Your task to perform on an android device: toggle data saver in the chrome app Image 0: 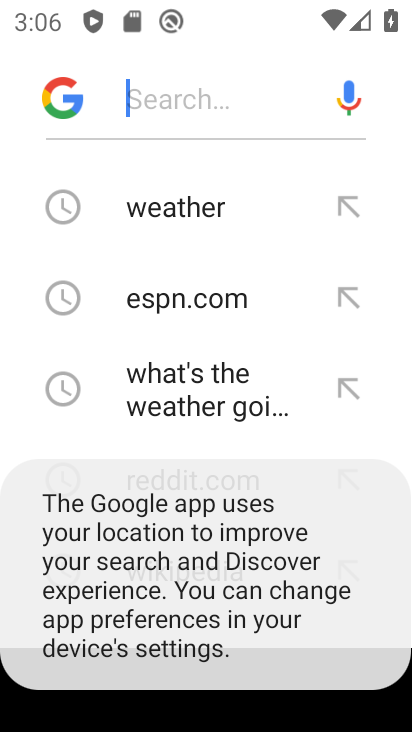
Step 0: press home button
Your task to perform on an android device: toggle data saver in the chrome app Image 1: 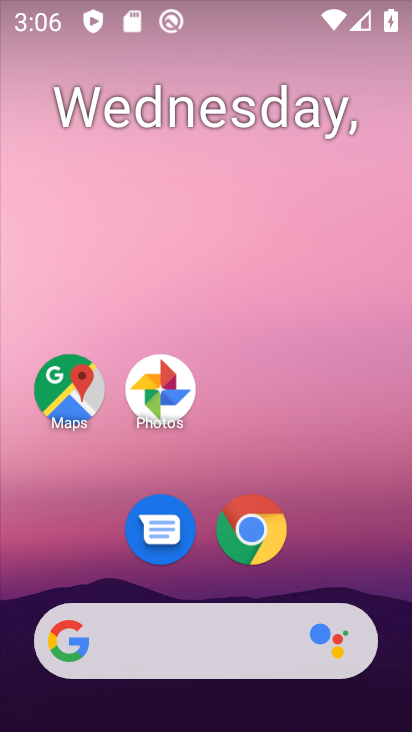
Step 1: drag from (206, 500) to (292, 83)
Your task to perform on an android device: toggle data saver in the chrome app Image 2: 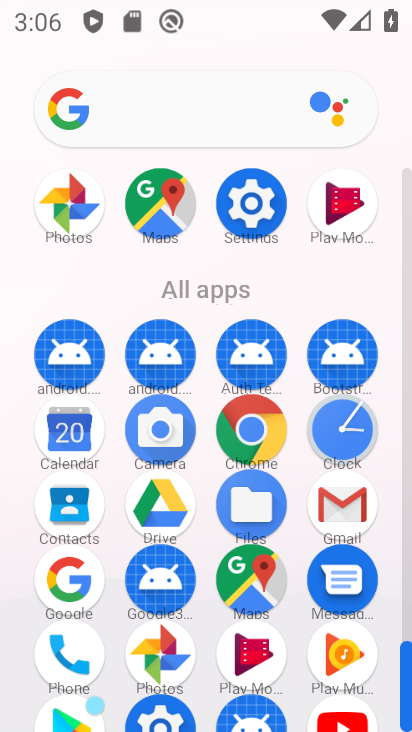
Step 2: click (255, 432)
Your task to perform on an android device: toggle data saver in the chrome app Image 3: 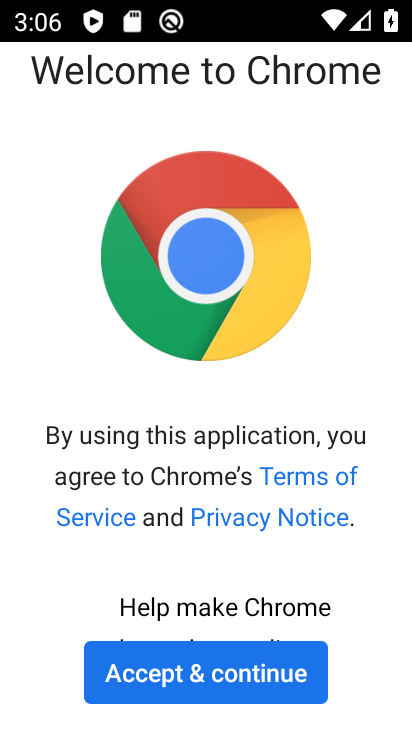
Step 3: click (213, 669)
Your task to perform on an android device: toggle data saver in the chrome app Image 4: 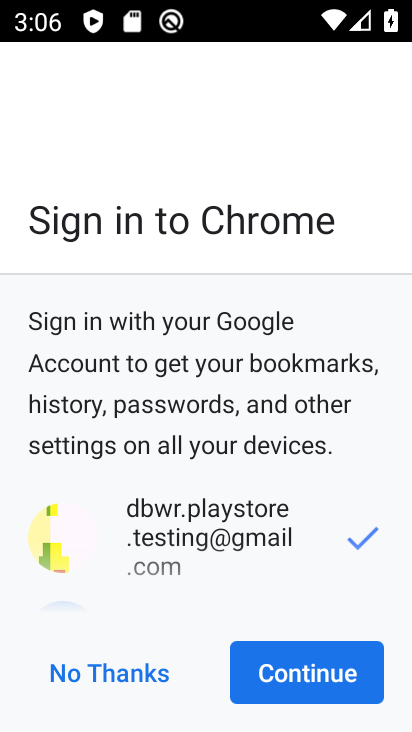
Step 4: click (311, 673)
Your task to perform on an android device: toggle data saver in the chrome app Image 5: 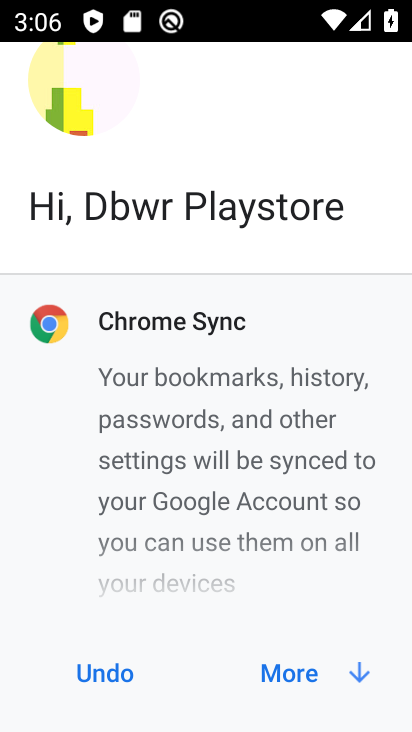
Step 5: click (290, 679)
Your task to perform on an android device: toggle data saver in the chrome app Image 6: 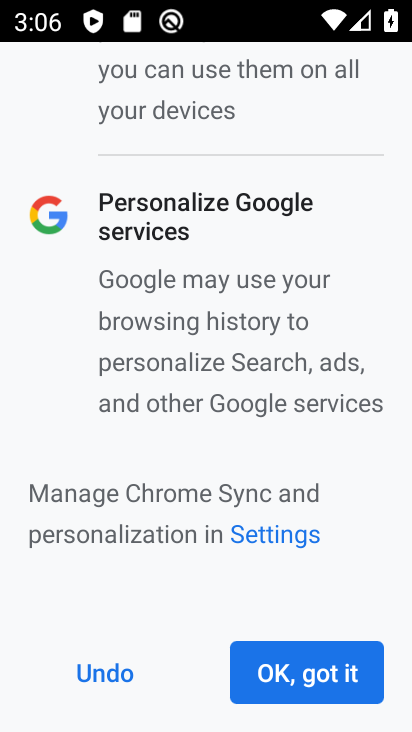
Step 6: click (310, 692)
Your task to perform on an android device: toggle data saver in the chrome app Image 7: 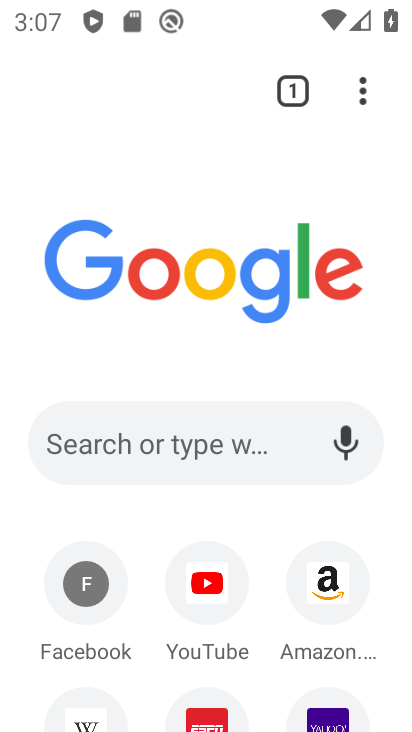
Step 7: click (360, 87)
Your task to perform on an android device: toggle data saver in the chrome app Image 8: 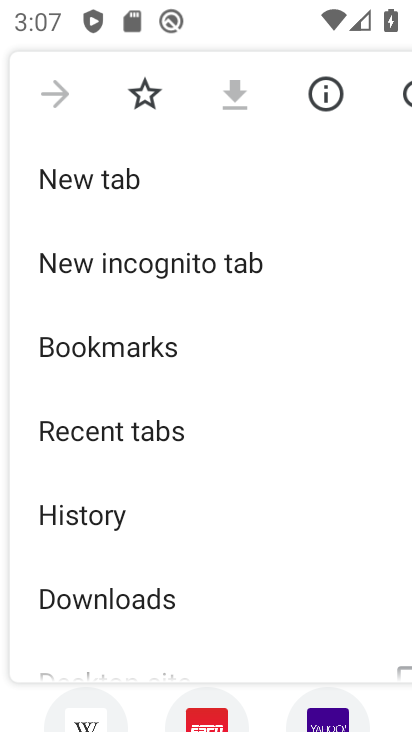
Step 8: drag from (139, 588) to (232, 211)
Your task to perform on an android device: toggle data saver in the chrome app Image 9: 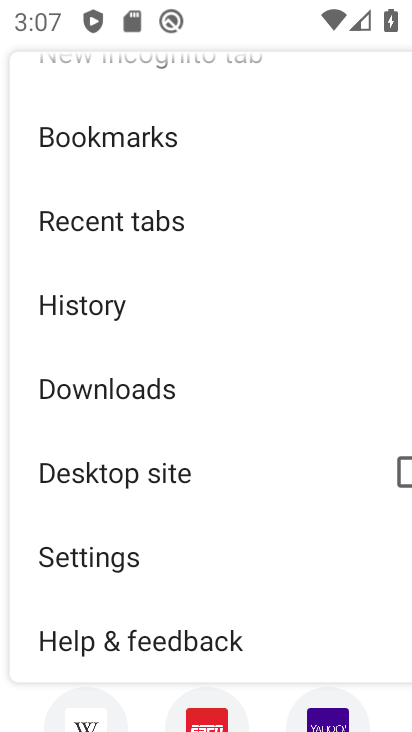
Step 9: click (88, 561)
Your task to perform on an android device: toggle data saver in the chrome app Image 10: 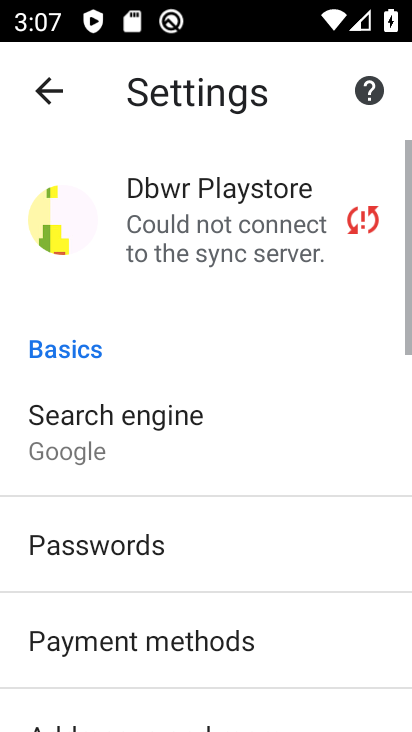
Step 10: drag from (157, 502) to (207, 279)
Your task to perform on an android device: toggle data saver in the chrome app Image 11: 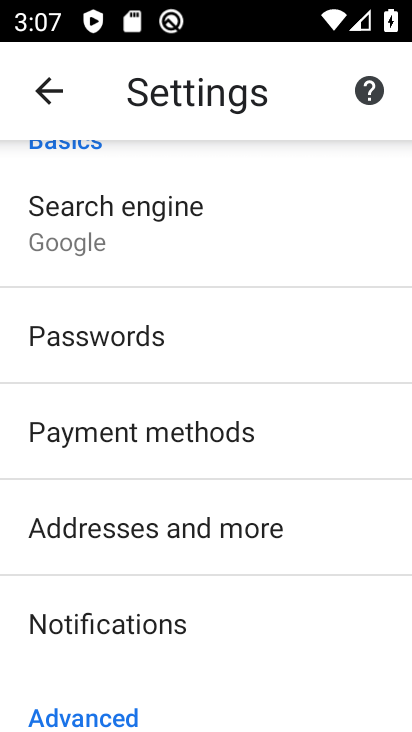
Step 11: drag from (169, 634) to (198, 313)
Your task to perform on an android device: toggle data saver in the chrome app Image 12: 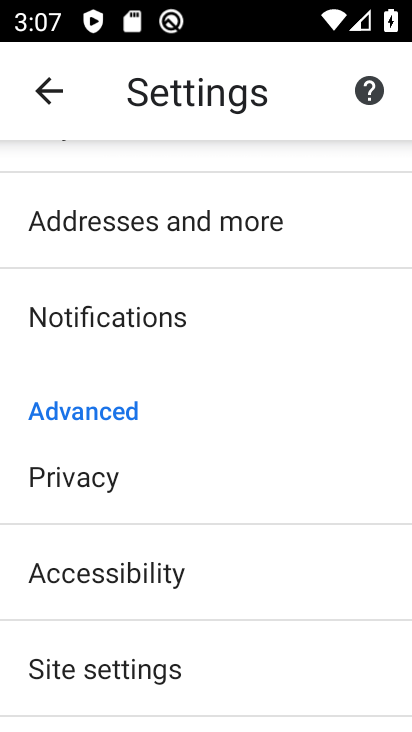
Step 12: drag from (144, 613) to (165, 405)
Your task to perform on an android device: toggle data saver in the chrome app Image 13: 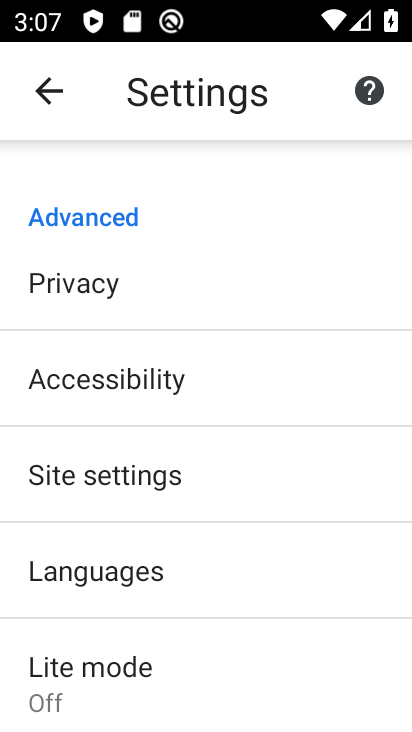
Step 13: click (77, 667)
Your task to perform on an android device: toggle data saver in the chrome app Image 14: 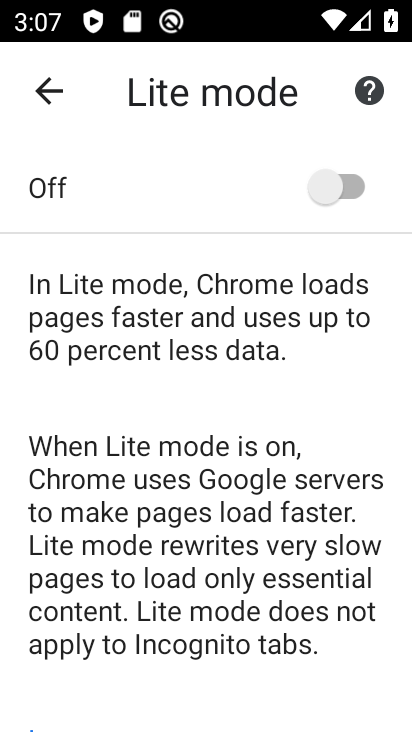
Step 14: click (321, 180)
Your task to perform on an android device: toggle data saver in the chrome app Image 15: 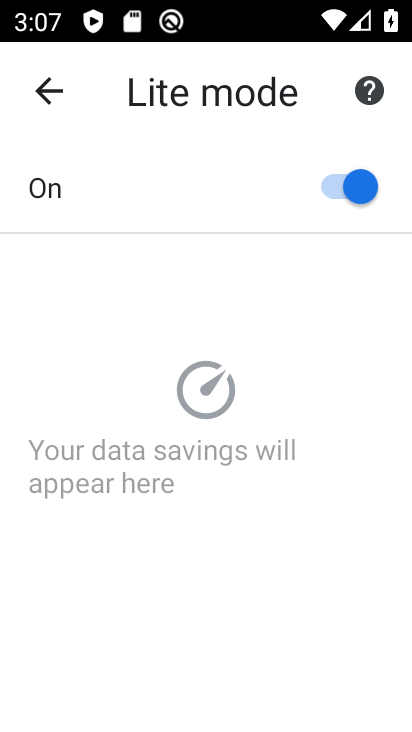
Step 15: task complete